Your task to perform on an android device: Open the map Image 0: 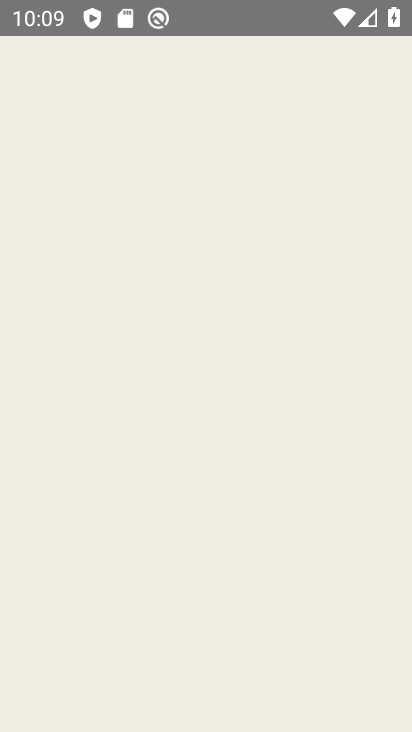
Step 0: press back button
Your task to perform on an android device: Open the map Image 1: 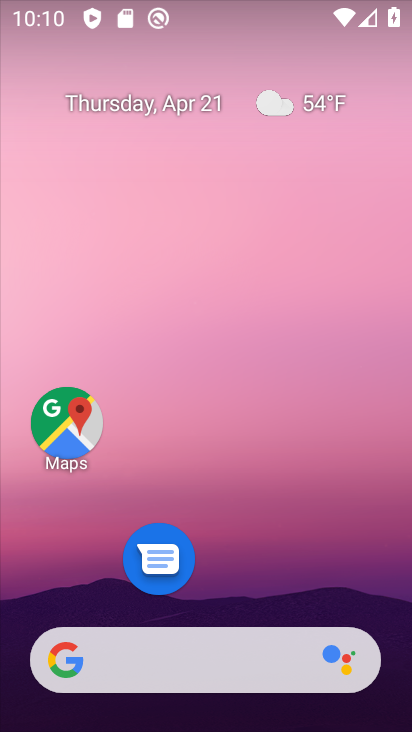
Step 1: click (65, 425)
Your task to perform on an android device: Open the map Image 2: 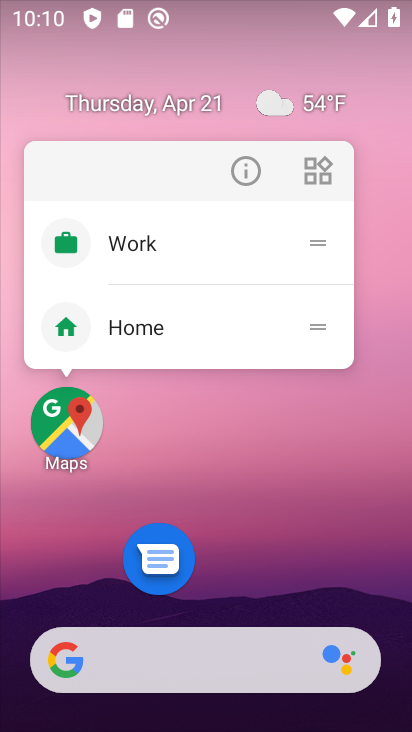
Step 2: click (74, 424)
Your task to perform on an android device: Open the map Image 3: 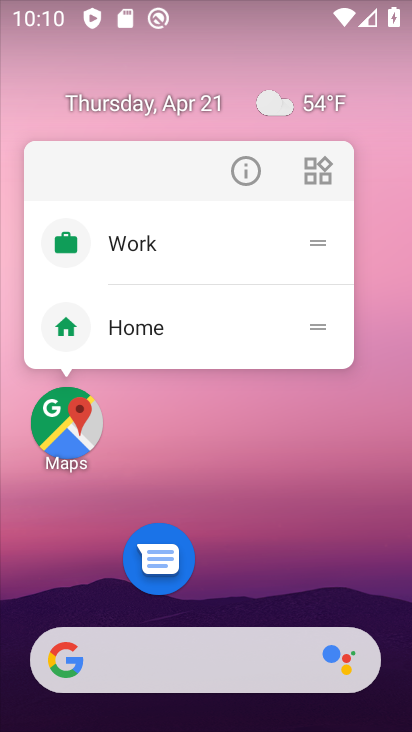
Step 3: click (74, 424)
Your task to perform on an android device: Open the map Image 4: 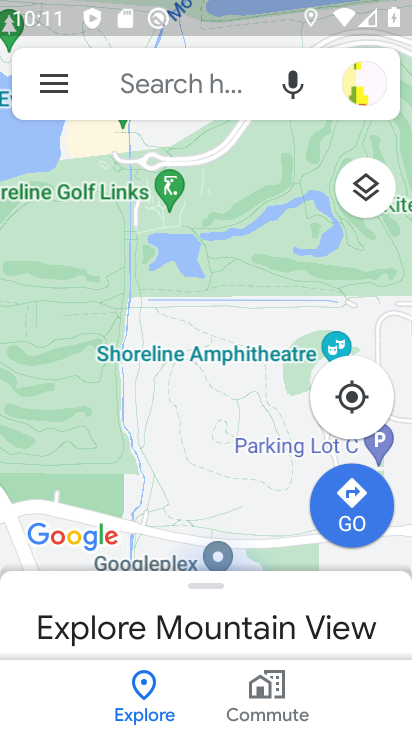
Step 4: task complete